Your task to perform on an android device: open sync settings in chrome Image 0: 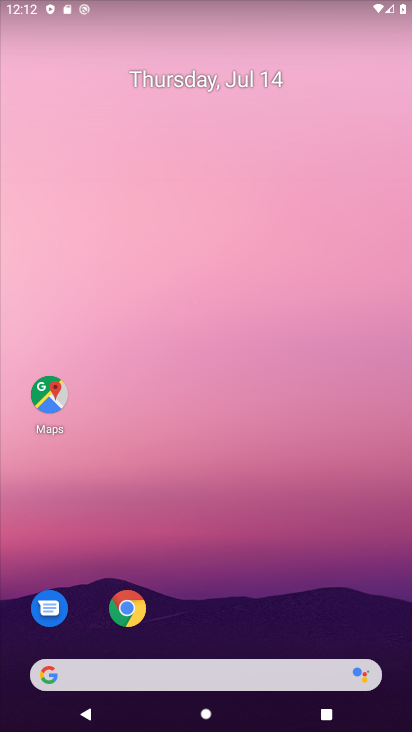
Step 0: drag from (116, 526) to (237, 59)
Your task to perform on an android device: open sync settings in chrome Image 1: 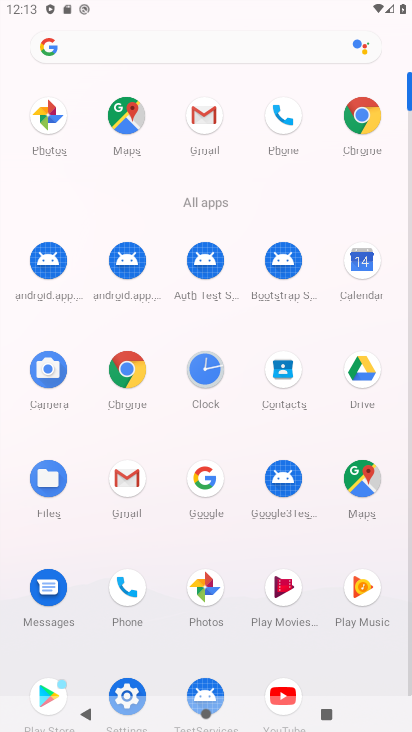
Step 1: click (135, 370)
Your task to perform on an android device: open sync settings in chrome Image 2: 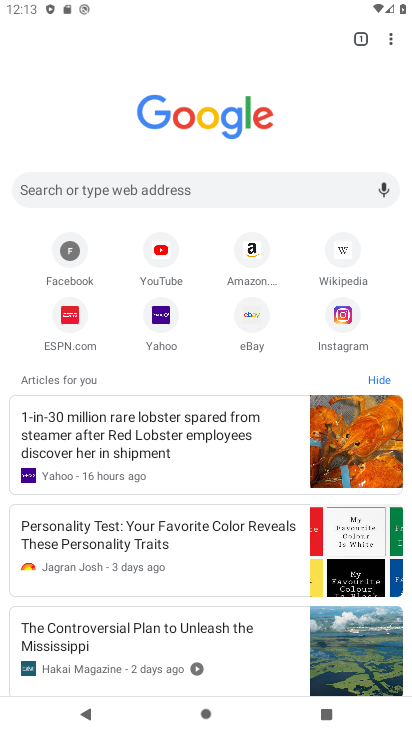
Step 2: click (391, 41)
Your task to perform on an android device: open sync settings in chrome Image 3: 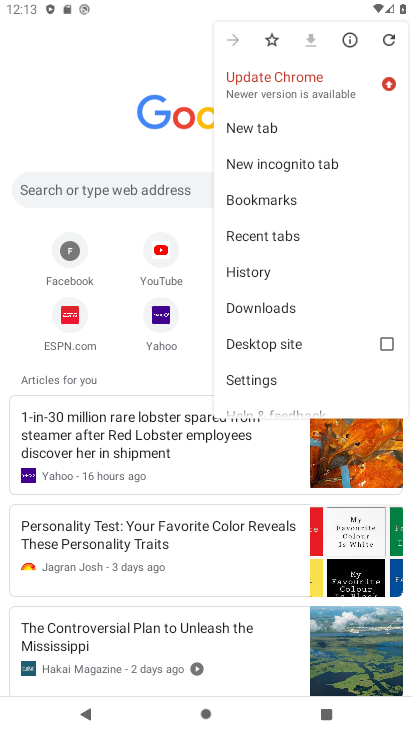
Step 3: click (276, 382)
Your task to perform on an android device: open sync settings in chrome Image 4: 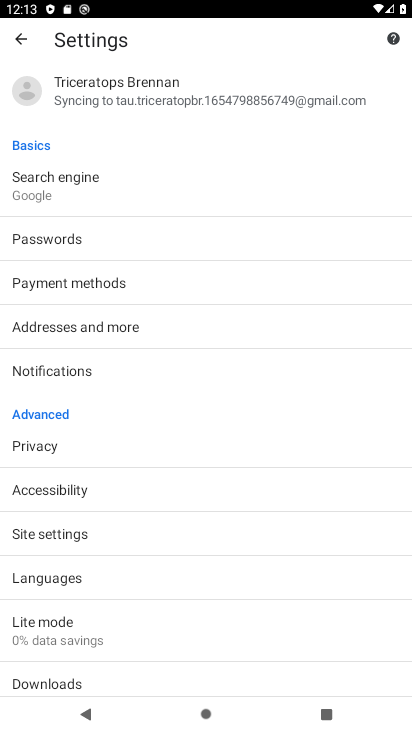
Step 4: click (128, 94)
Your task to perform on an android device: open sync settings in chrome Image 5: 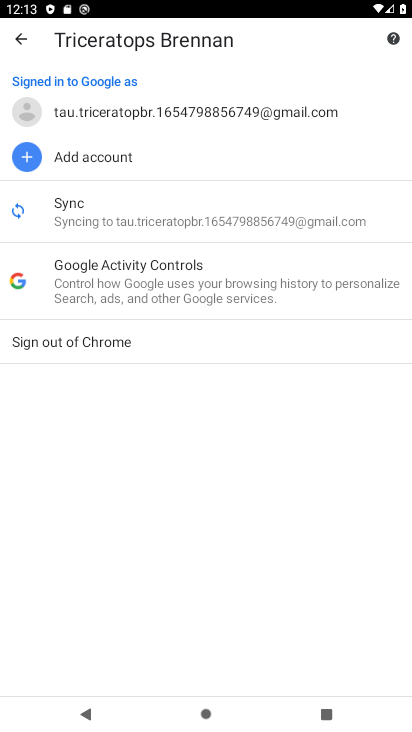
Step 5: click (160, 215)
Your task to perform on an android device: open sync settings in chrome Image 6: 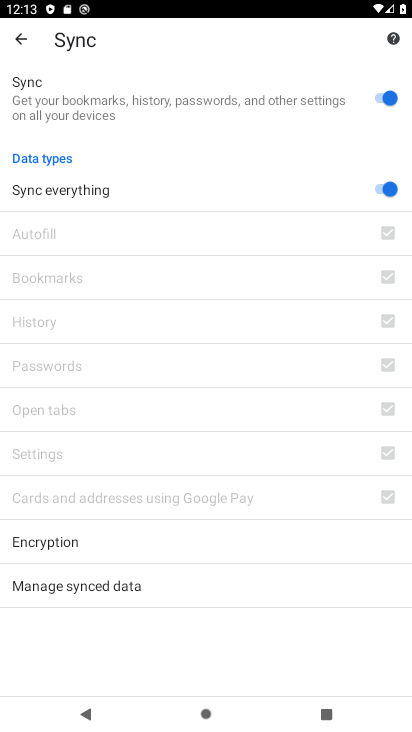
Step 6: task complete